Your task to perform on an android device: change timer sound Image 0: 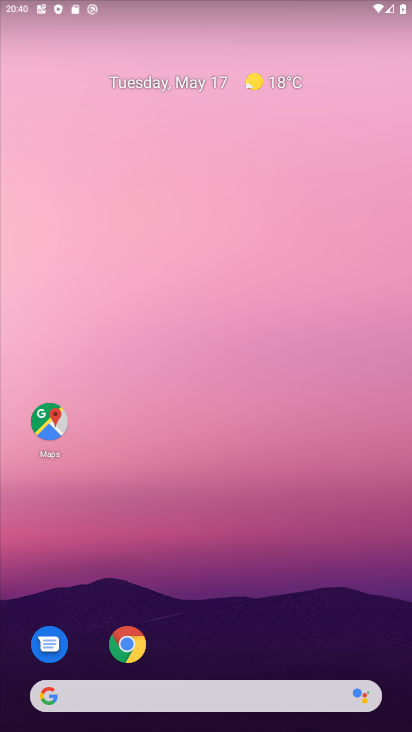
Step 0: drag from (283, 613) to (366, 91)
Your task to perform on an android device: change timer sound Image 1: 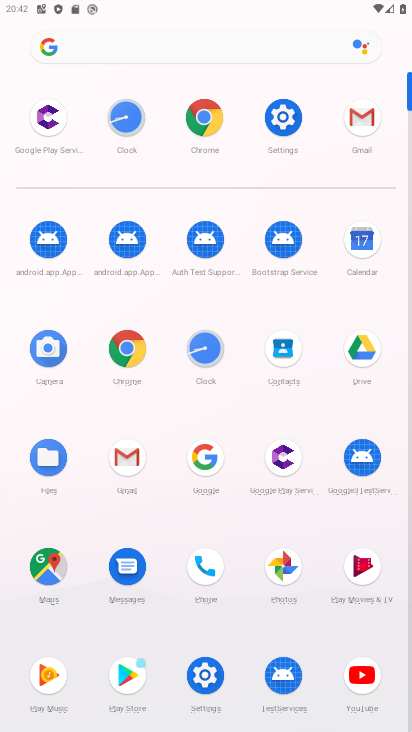
Step 1: click (212, 688)
Your task to perform on an android device: change timer sound Image 2: 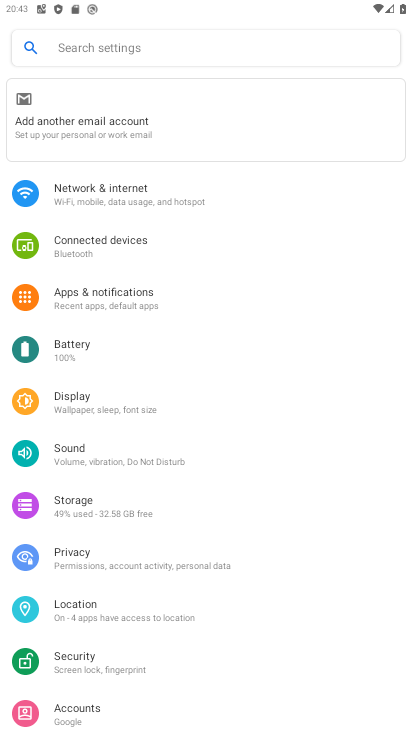
Step 2: press back button
Your task to perform on an android device: change timer sound Image 3: 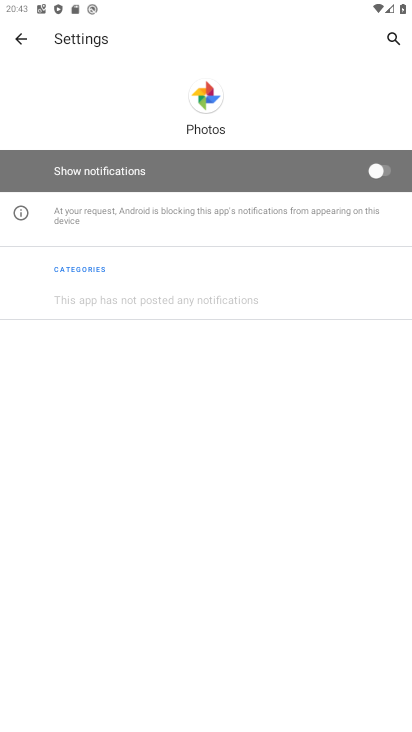
Step 3: press back button
Your task to perform on an android device: change timer sound Image 4: 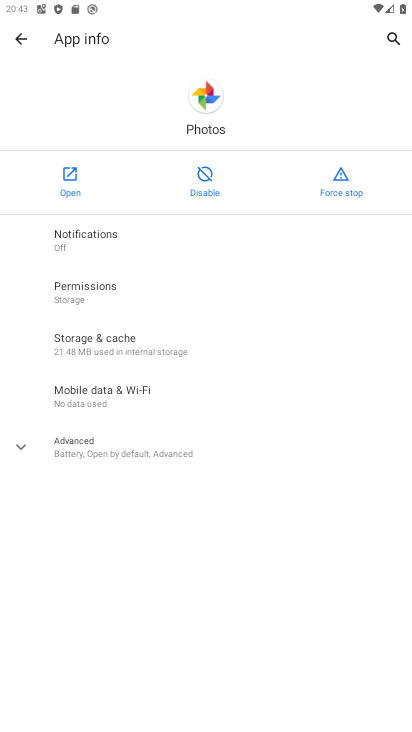
Step 4: press back button
Your task to perform on an android device: change timer sound Image 5: 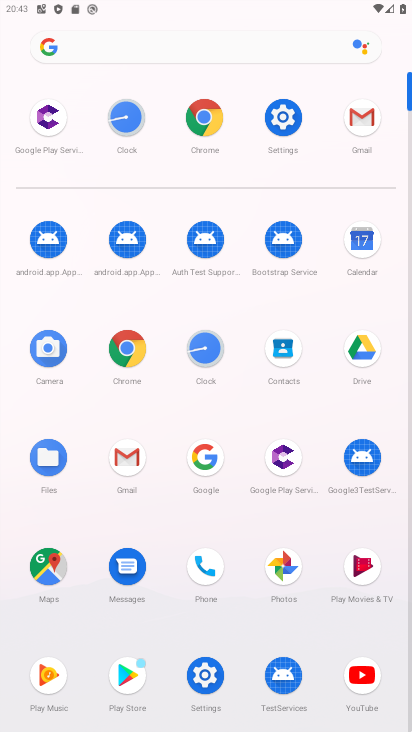
Step 5: click (214, 345)
Your task to perform on an android device: change timer sound Image 6: 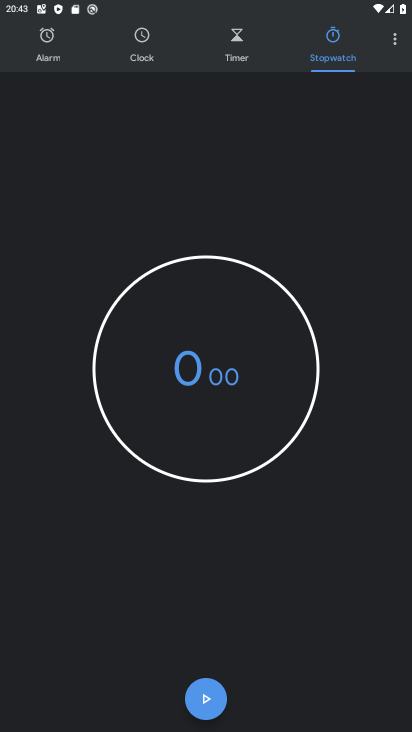
Step 6: click (394, 37)
Your task to perform on an android device: change timer sound Image 7: 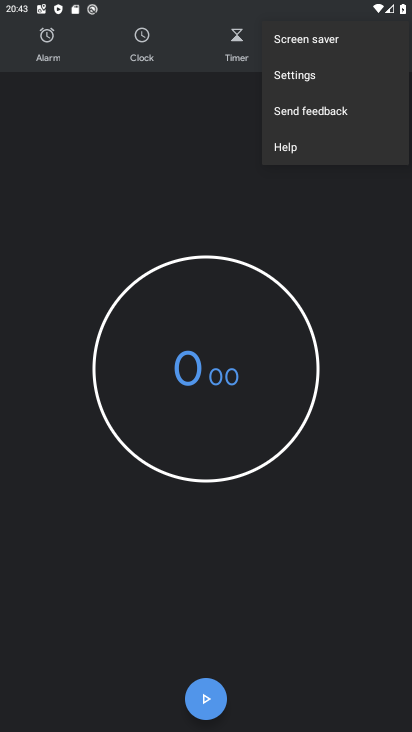
Step 7: click (296, 69)
Your task to perform on an android device: change timer sound Image 8: 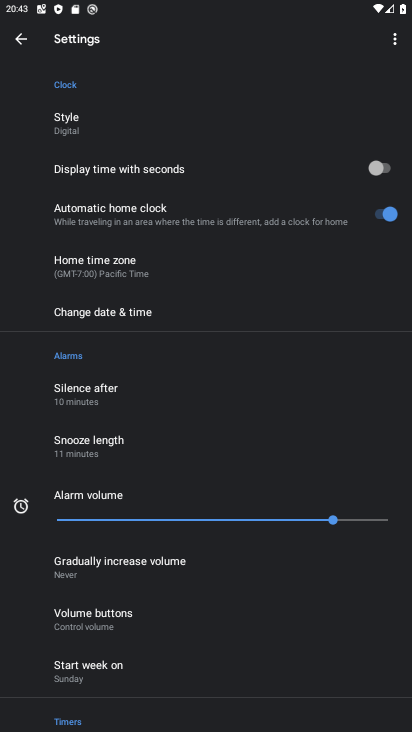
Step 8: drag from (115, 639) to (209, 117)
Your task to perform on an android device: change timer sound Image 9: 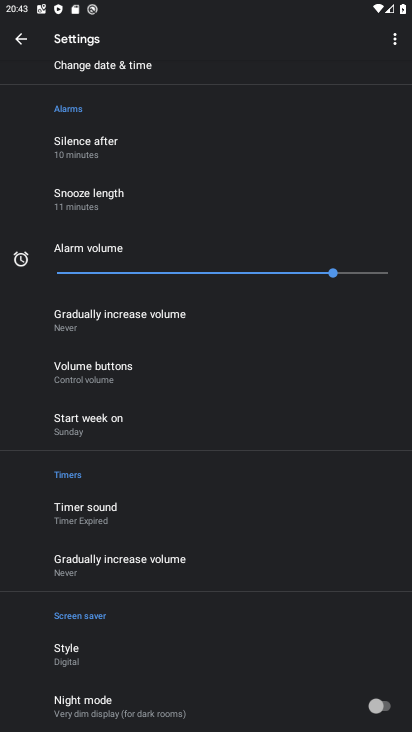
Step 9: click (107, 523)
Your task to perform on an android device: change timer sound Image 10: 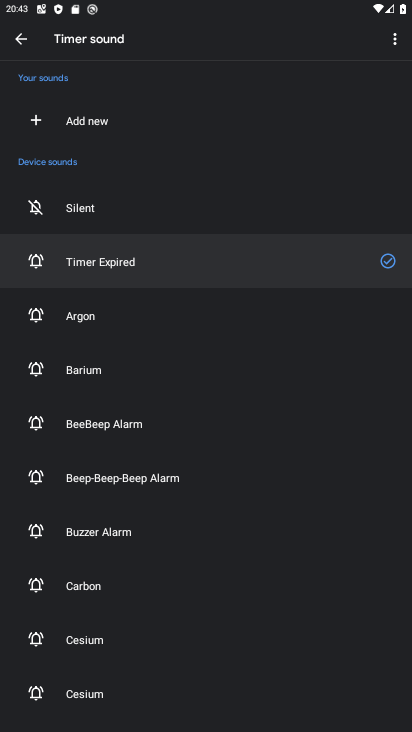
Step 10: click (99, 375)
Your task to perform on an android device: change timer sound Image 11: 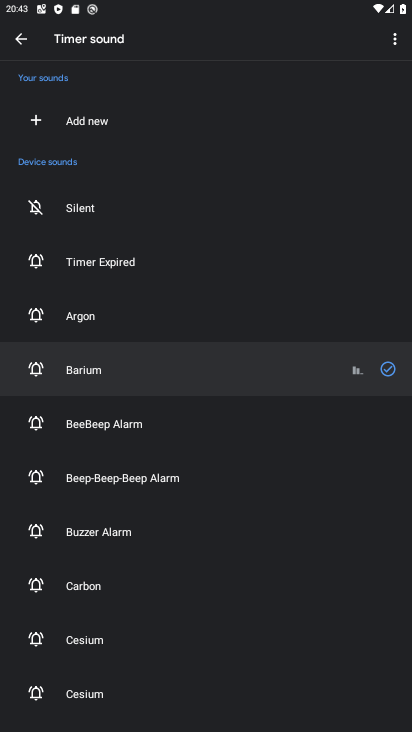
Step 11: task complete